Your task to perform on an android device: turn on javascript in the chrome app Image 0: 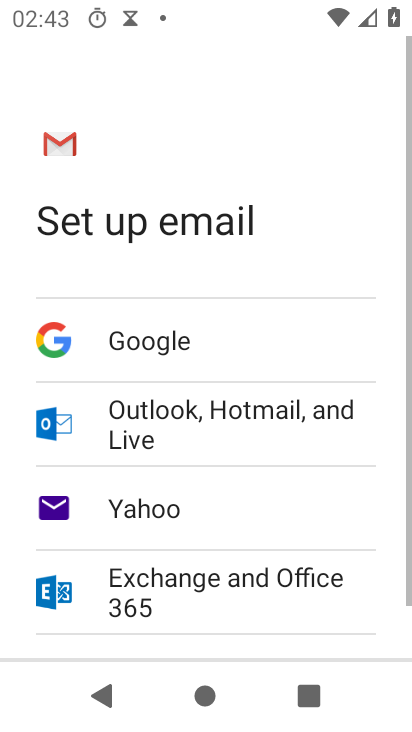
Step 0: press home button
Your task to perform on an android device: turn on javascript in the chrome app Image 1: 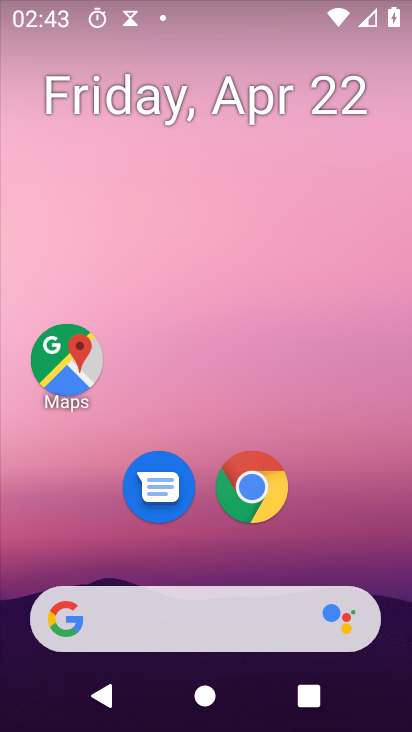
Step 1: drag from (189, 590) to (303, 85)
Your task to perform on an android device: turn on javascript in the chrome app Image 2: 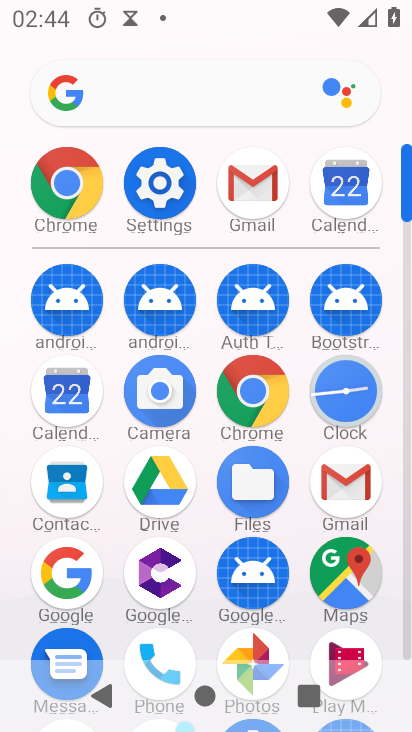
Step 2: click (69, 188)
Your task to perform on an android device: turn on javascript in the chrome app Image 3: 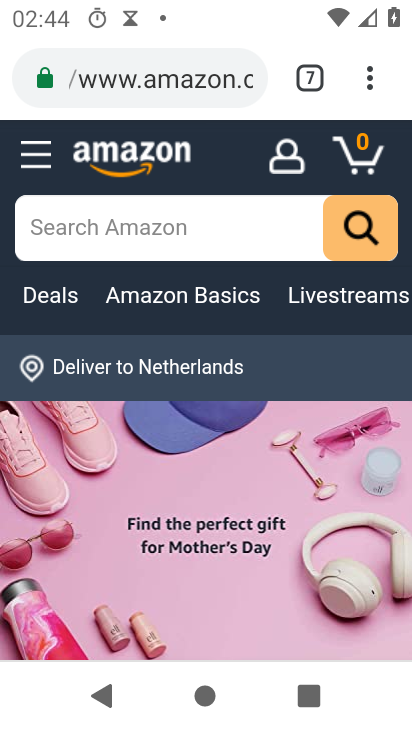
Step 3: drag from (370, 83) to (126, 549)
Your task to perform on an android device: turn on javascript in the chrome app Image 4: 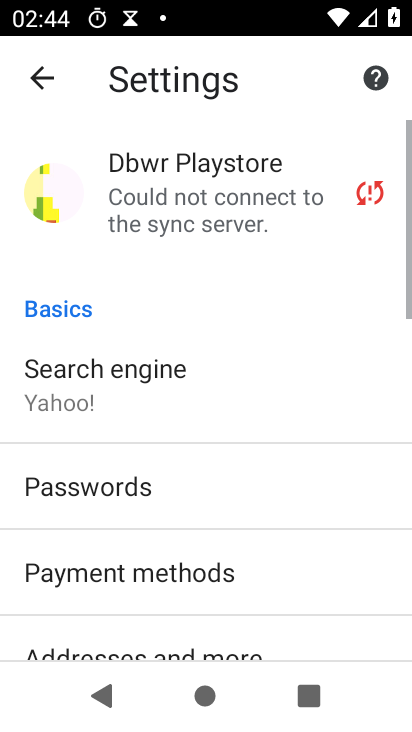
Step 4: drag from (143, 595) to (286, 204)
Your task to perform on an android device: turn on javascript in the chrome app Image 5: 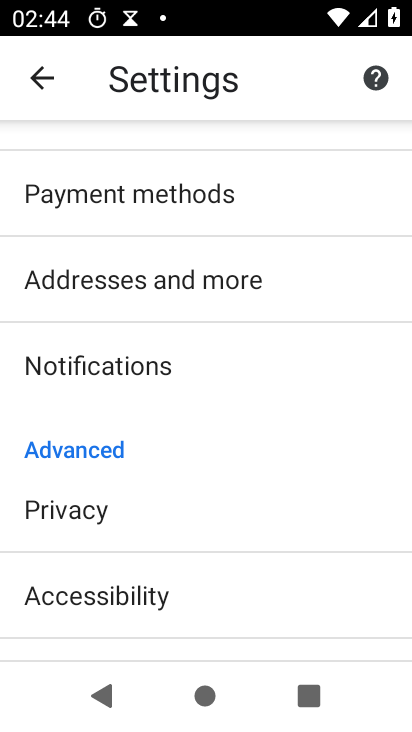
Step 5: drag from (178, 569) to (285, 215)
Your task to perform on an android device: turn on javascript in the chrome app Image 6: 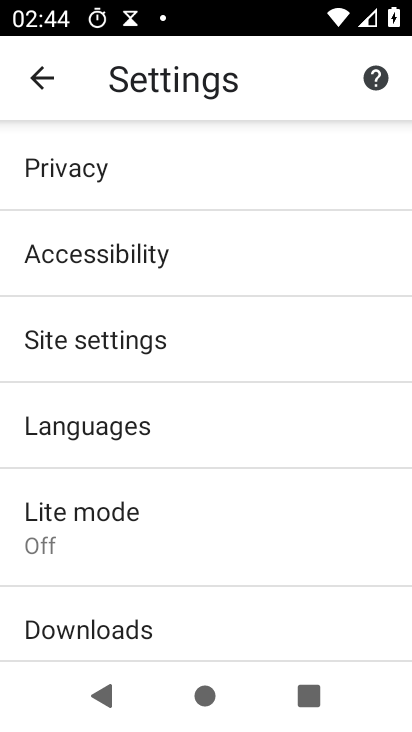
Step 6: click (122, 341)
Your task to perform on an android device: turn on javascript in the chrome app Image 7: 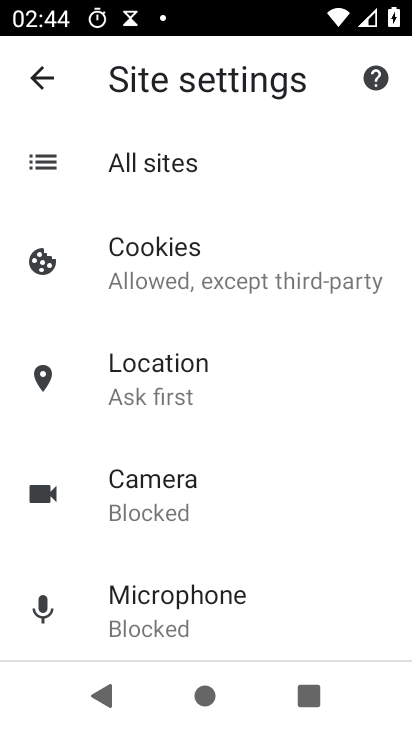
Step 7: drag from (153, 561) to (290, 222)
Your task to perform on an android device: turn on javascript in the chrome app Image 8: 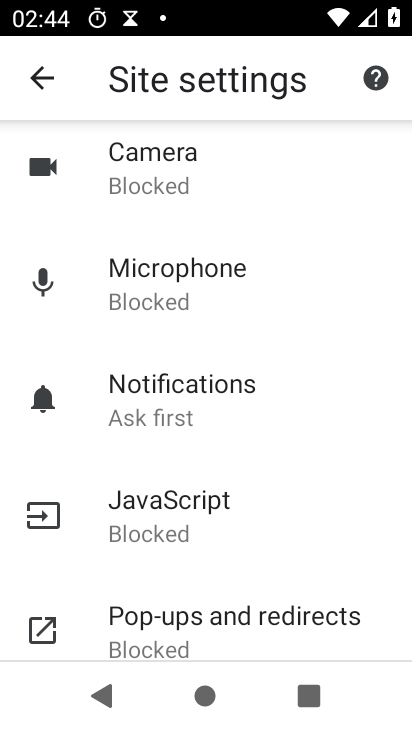
Step 8: click (143, 515)
Your task to perform on an android device: turn on javascript in the chrome app Image 9: 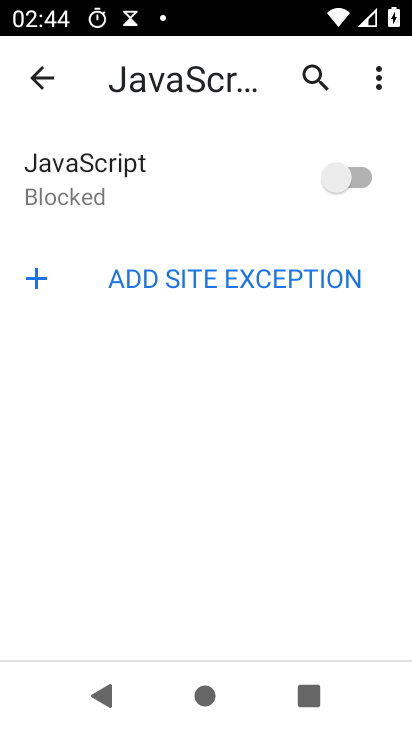
Step 9: click (364, 177)
Your task to perform on an android device: turn on javascript in the chrome app Image 10: 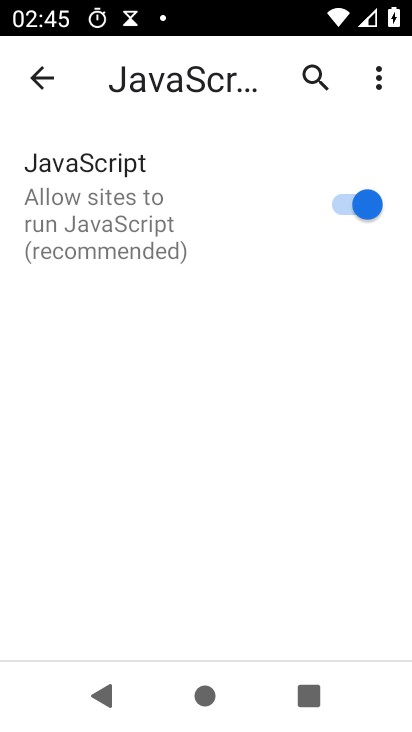
Step 10: task complete